Your task to perform on an android device: uninstall "Gboard" Image 0: 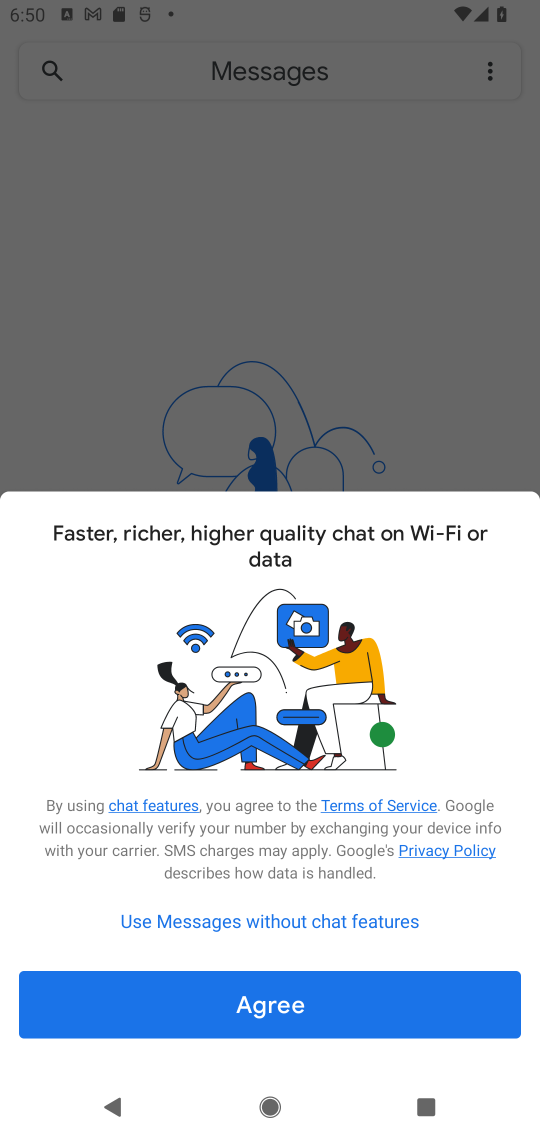
Step 0: press back button
Your task to perform on an android device: uninstall "Gboard" Image 1: 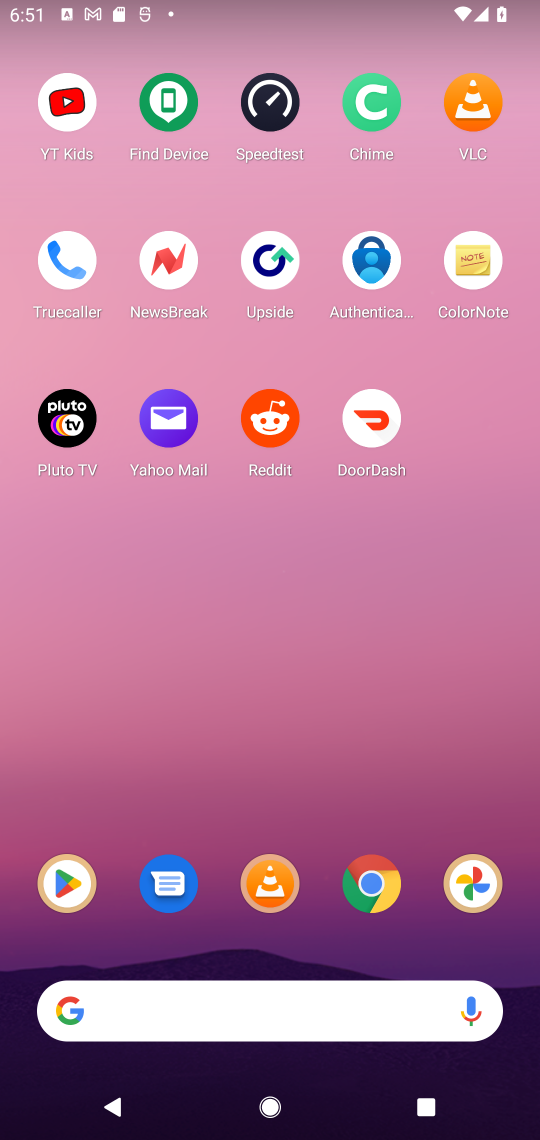
Step 1: click (64, 886)
Your task to perform on an android device: uninstall "Gboard" Image 2: 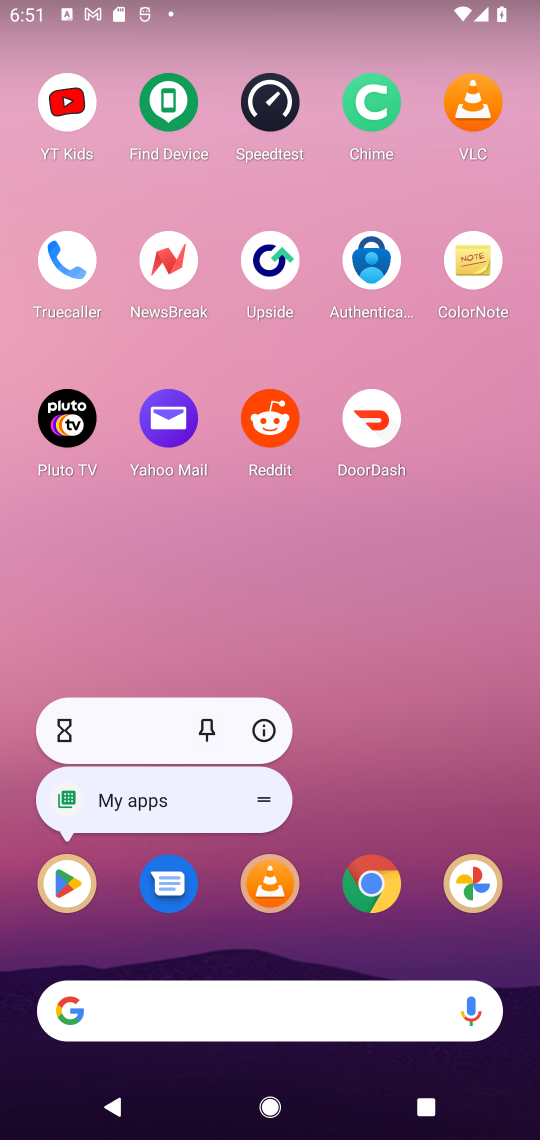
Step 2: click (72, 879)
Your task to perform on an android device: uninstall "Gboard" Image 3: 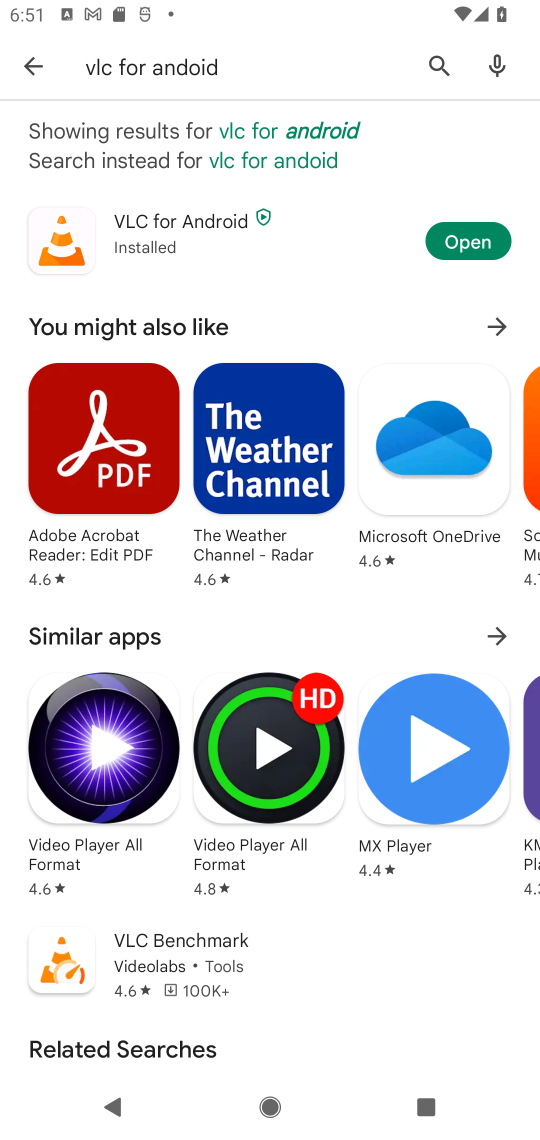
Step 3: click (462, 65)
Your task to perform on an android device: uninstall "Gboard" Image 4: 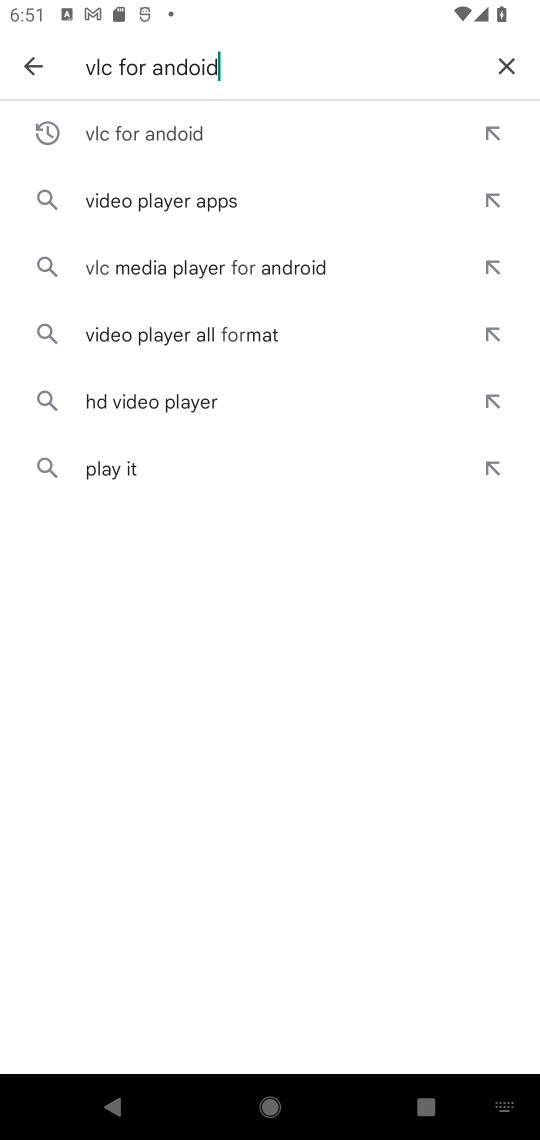
Step 4: click (527, 66)
Your task to perform on an android device: uninstall "Gboard" Image 5: 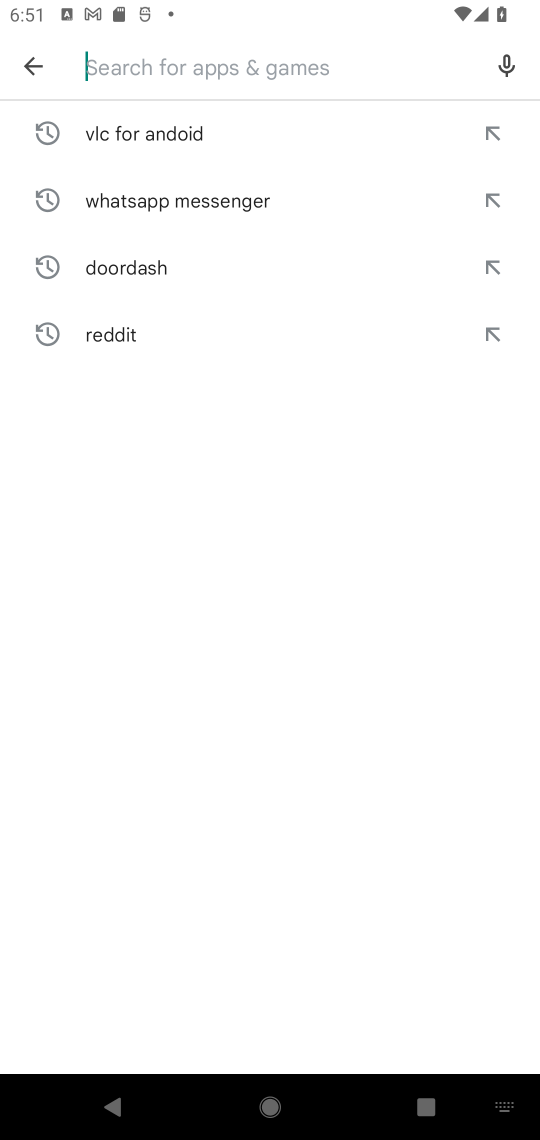
Step 5: click (145, 69)
Your task to perform on an android device: uninstall "Gboard" Image 6: 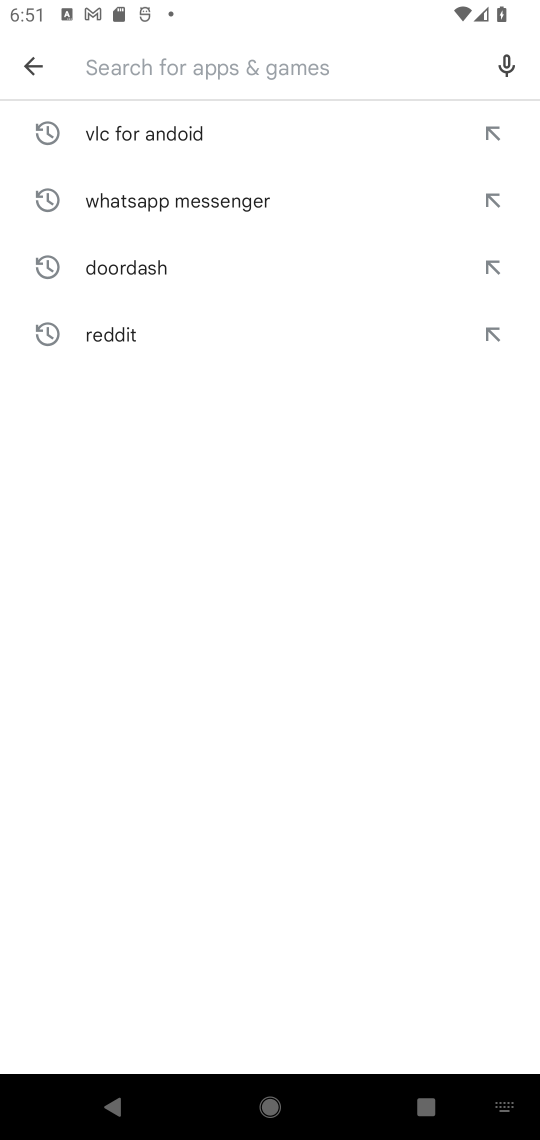
Step 6: type "gboard"
Your task to perform on an android device: uninstall "Gboard" Image 7: 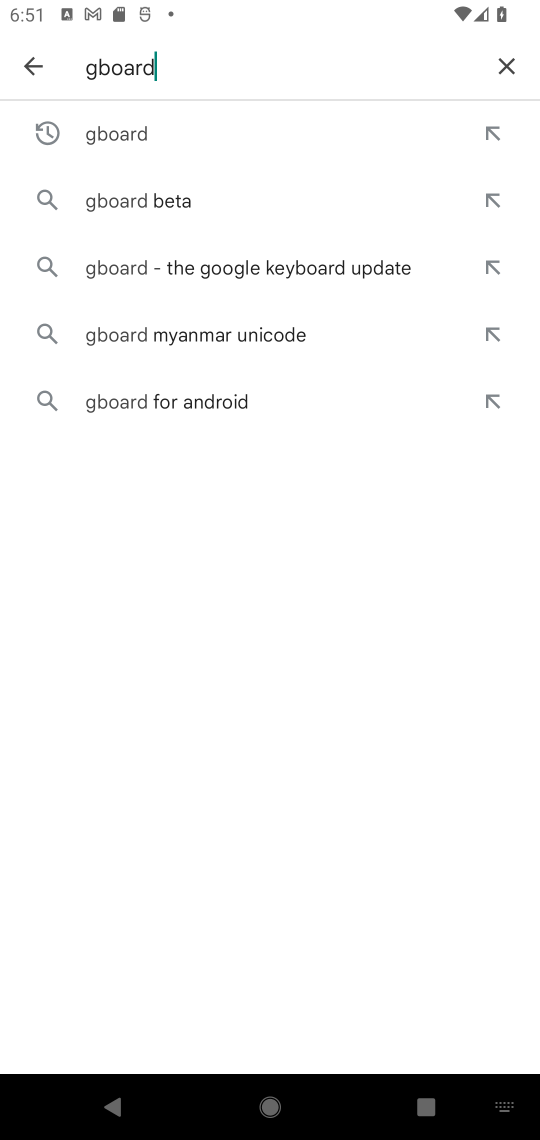
Step 7: click (129, 150)
Your task to perform on an android device: uninstall "Gboard" Image 8: 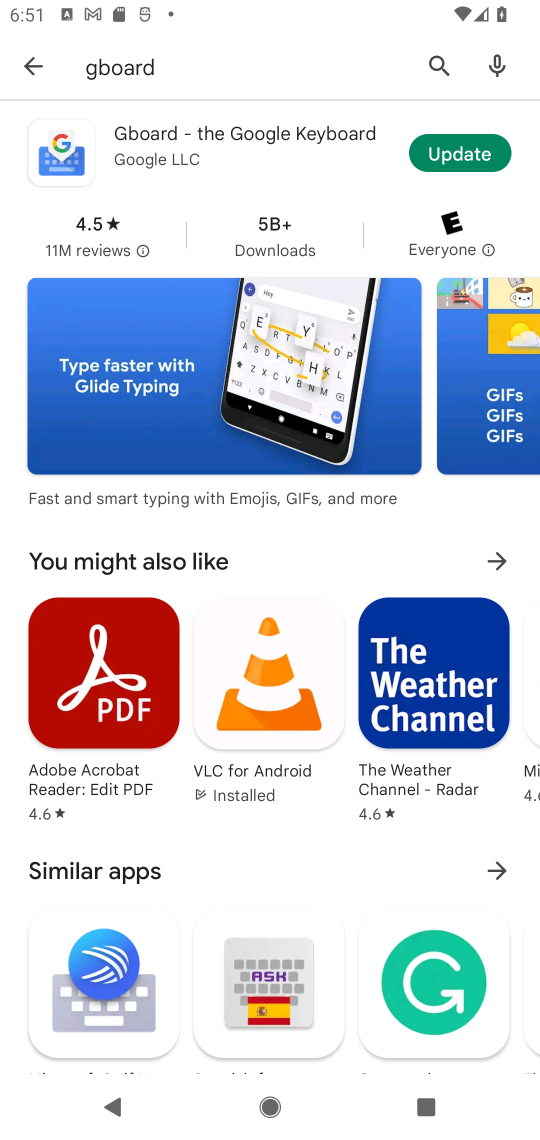
Step 8: click (157, 161)
Your task to perform on an android device: uninstall "Gboard" Image 9: 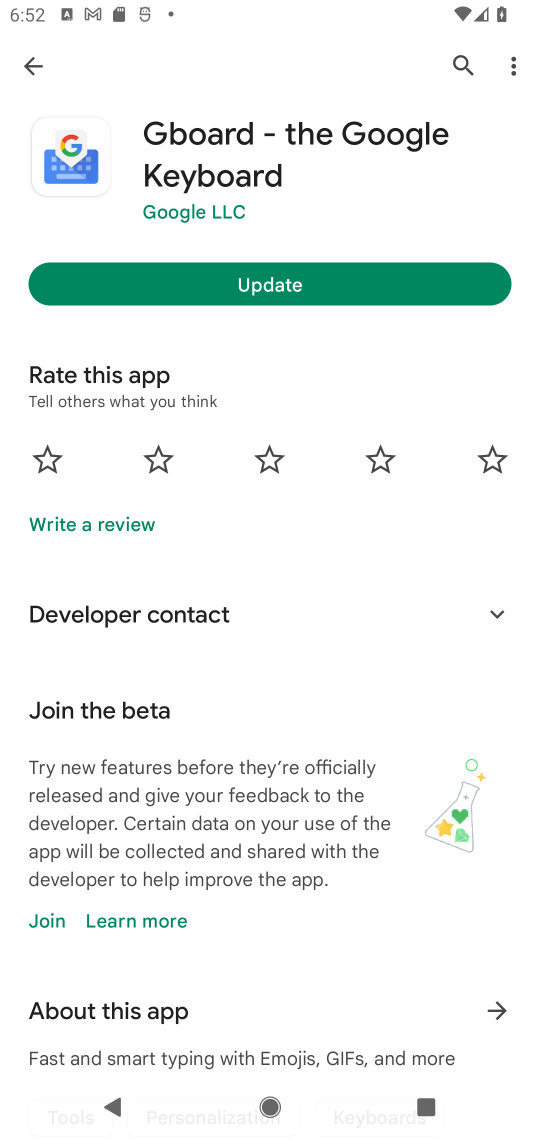
Step 9: task complete